Your task to perform on an android device: Open my contact list Image 0: 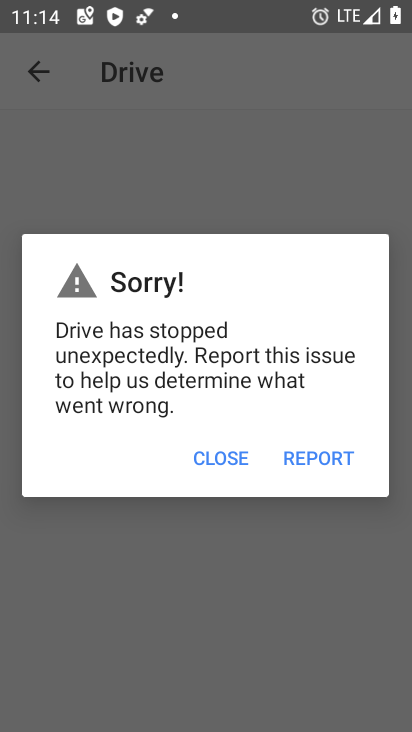
Step 0: press home button
Your task to perform on an android device: Open my contact list Image 1: 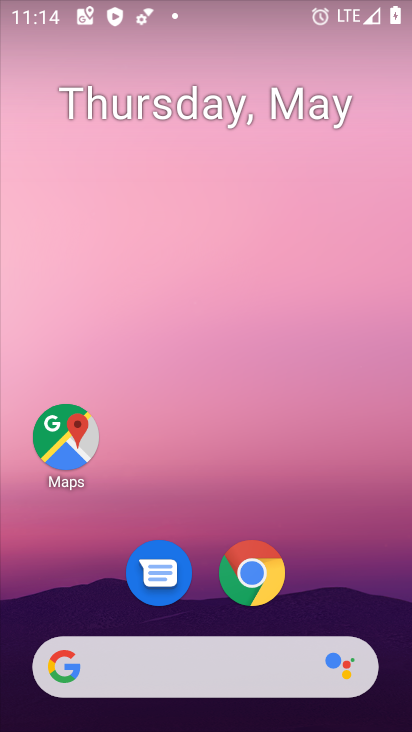
Step 1: drag from (213, 606) to (215, 159)
Your task to perform on an android device: Open my contact list Image 2: 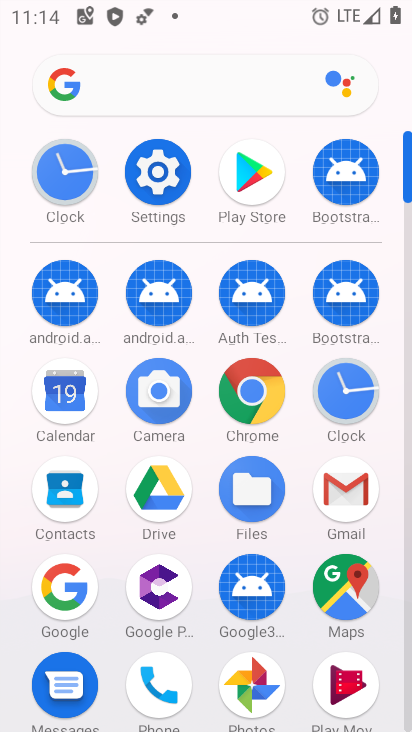
Step 2: click (85, 490)
Your task to perform on an android device: Open my contact list Image 3: 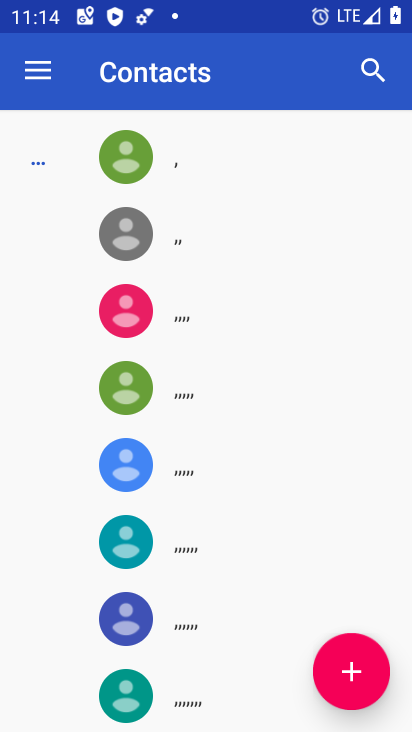
Step 3: task complete